Your task to perform on an android device: Show me popular games on the Play Store Image 0: 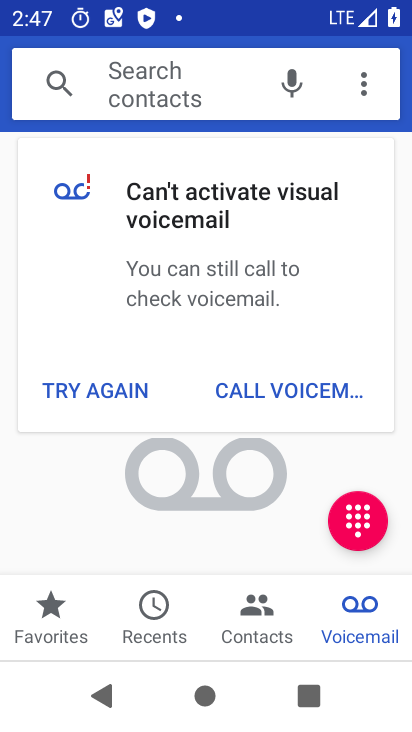
Step 0: press home button
Your task to perform on an android device: Show me popular games on the Play Store Image 1: 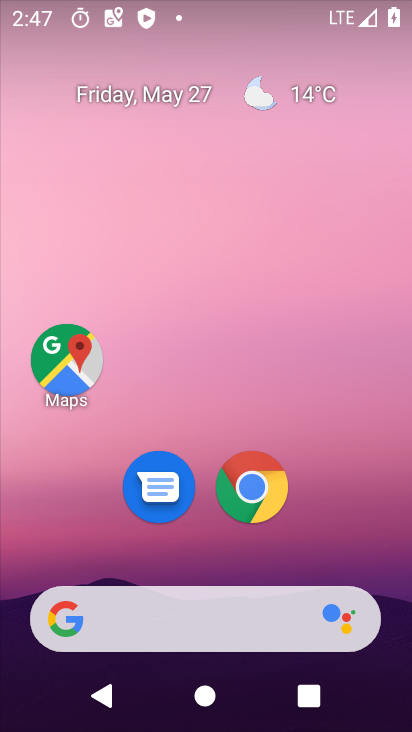
Step 1: drag from (339, 502) to (330, 110)
Your task to perform on an android device: Show me popular games on the Play Store Image 2: 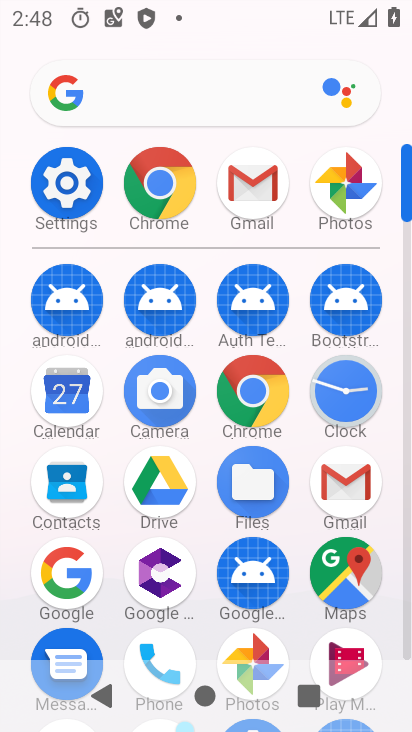
Step 2: drag from (300, 515) to (305, 174)
Your task to perform on an android device: Show me popular games on the Play Store Image 3: 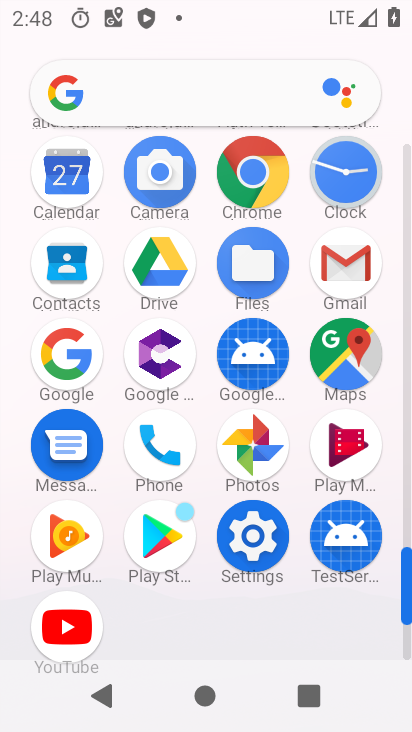
Step 3: click (148, 543)
Your task to perform on an android device: Show me popular games on the Play Store Image 4: 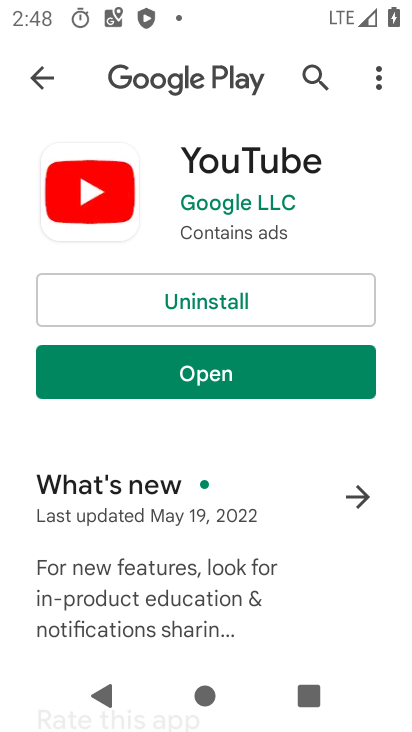
Step 4: click (49, 86)
Your task to perform on an android device: Show me popular games on the Play Store Image 5: 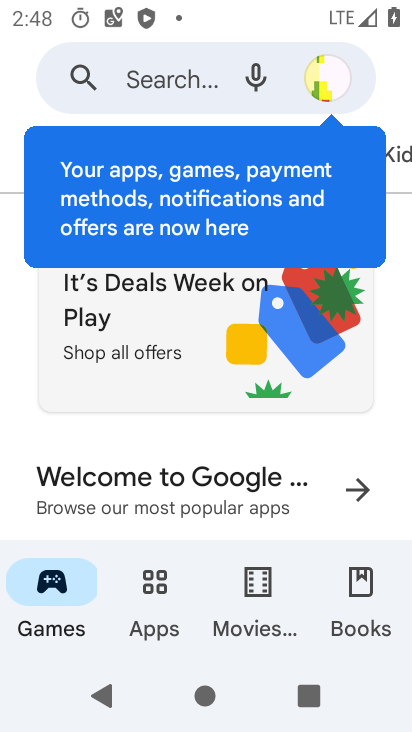
Step 5: drag from (212, 474) to (302, 30)
Your task to perform on an android device: Show me popular games on the Play Store Image 6: 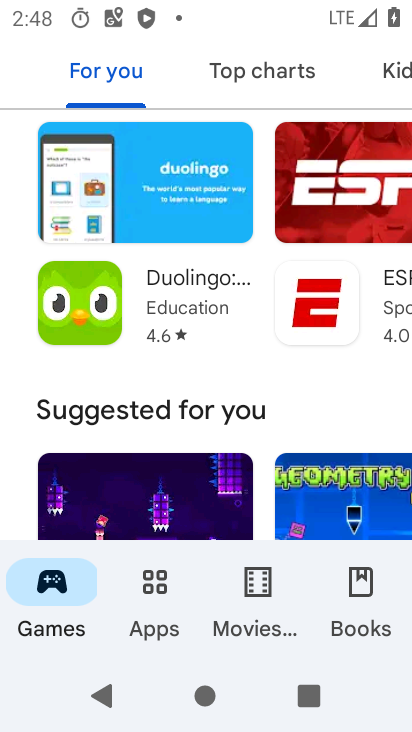
Step 6: drag from (168, 483) to (242, 70)
Your task to perform on an android device: Show me popular games on the Play Store Image 7: 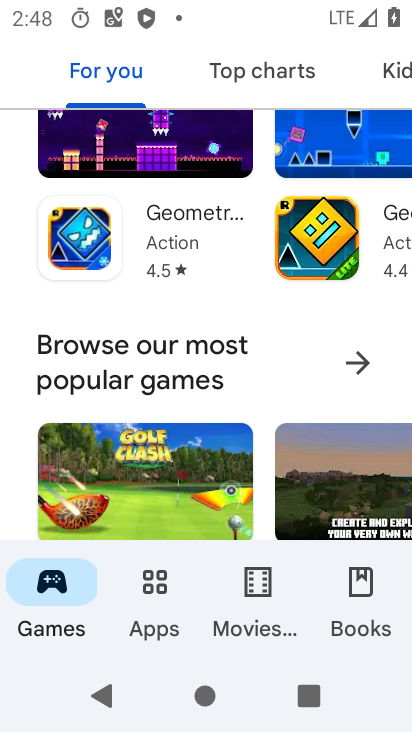
Step 7: drag from (185, 486) to (247, 74)
Your task to perform on an android device: Show me popular games on the Play Store Image 8: 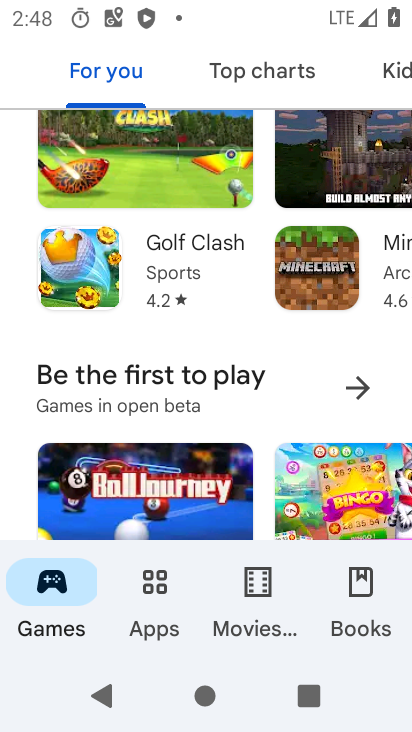
Step 8: drag from (203, 452) to (214, 26)
Your task to perform on an android device: Show me popular games on the Play Store Image 9: 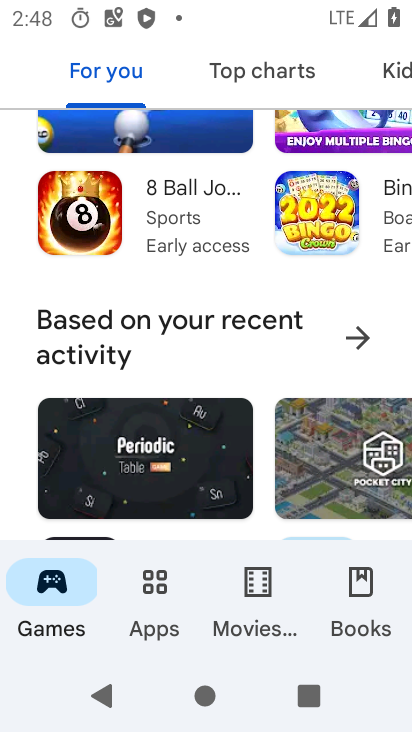
Step 9: drag from (194, 366) to (224, 76)
Your task to perform on an android device: Show me popular games on the Play Store Image 10: 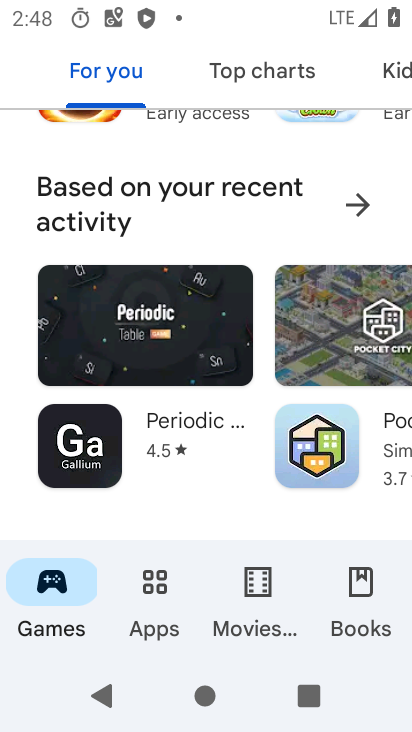
Step 10: drag from (185, 418) to (222, 92)
Your task to perform on an android device: Show me popular games on the Play Store Image 11: 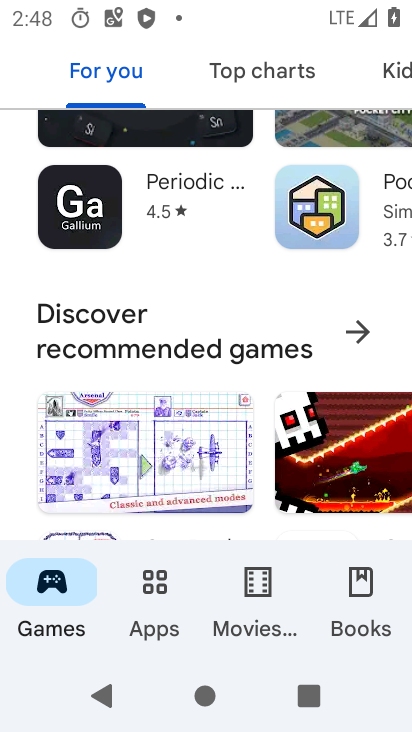
Step 11: drag from (168, 443) to (220, 140)
Your task to perform on an android device: Show me popular games on the Play Store Image 12: 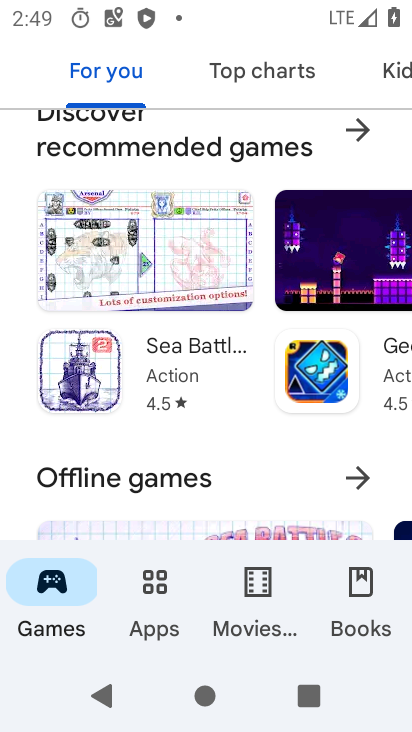
Step 12: drag from (197, 399) to (241, 92)
Your task to perform on an android device: Show me popular games on the Play Store Image 13: 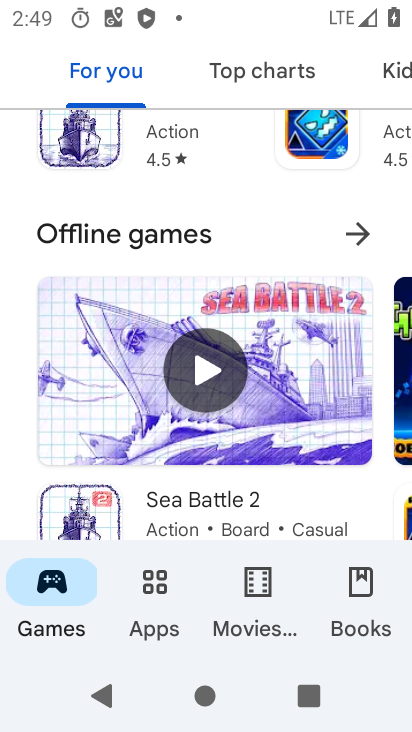
Step 13: drag from (204, 474) to (274, 104)
Your task to perform on an android device: Show me popular games on the Play Store Image 14: 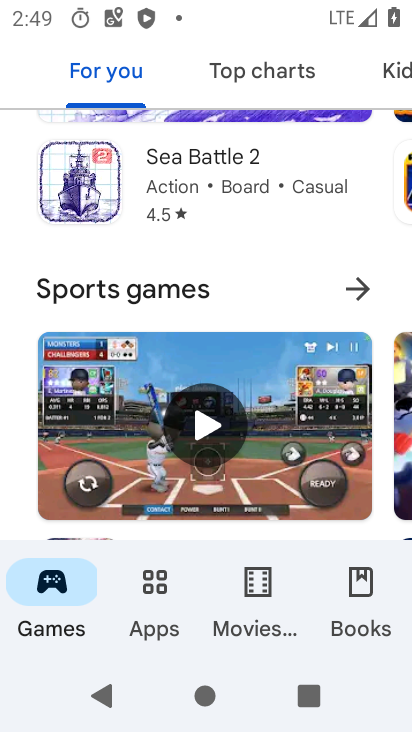
Step 14: drag from (210, 494) to (268, 149)
Your task to perform on an android device: Show me popular games on the Play Store Image 15: 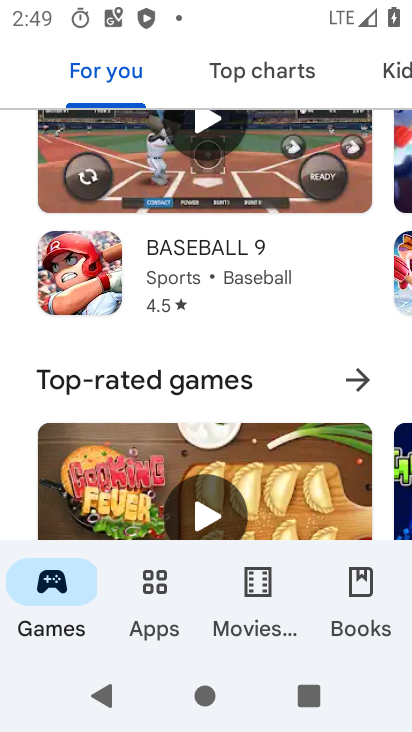
Step 15: drag from (222, 467) to (230, 89)
Your task to perform on an android device: Show me popular games on the Play Store Image 16: 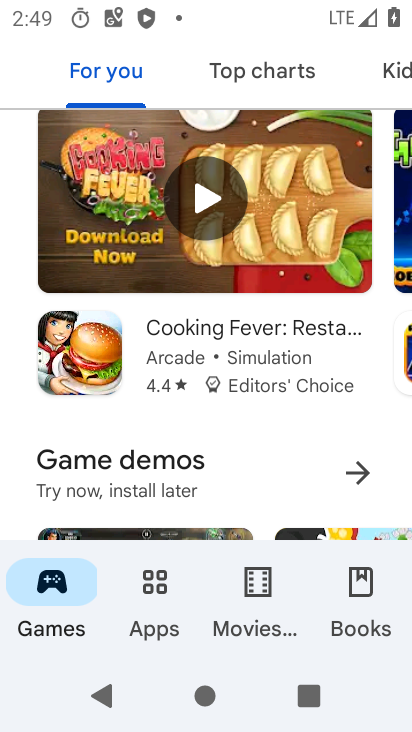
Step 16: drag from (196, 429) to (246, 32)
Your task to perform on an android device: Show me popular games on the Play Store Image 17: 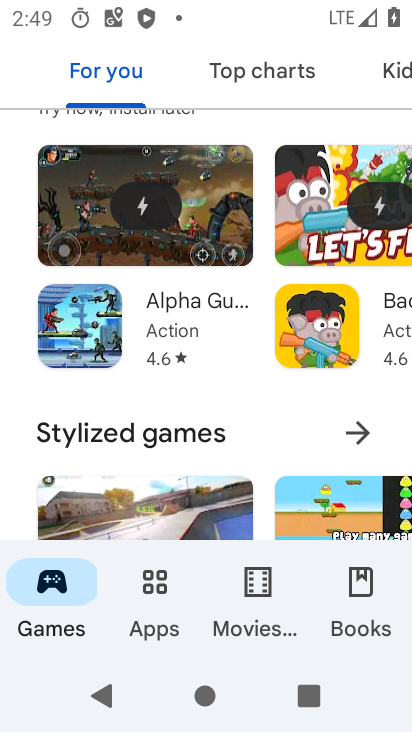
Step 17: drag from (181, 460) to (239, 108)
Your task to perform on an android device: Show me popular games on the Play Store Image 18: 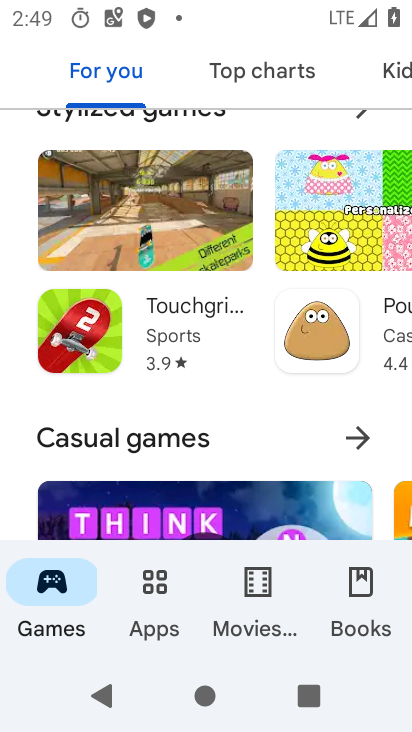
Step 18: drag from (190, 453) to (205, 137)
Your task to perform on an android device: Show me popular games on the Play Store Image 19: 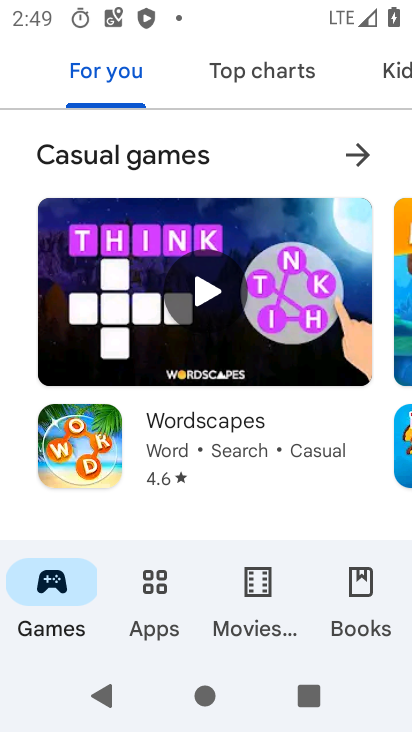
Step 19: drag from (208, 483) to (194, 152)
Your task to perform on an android device: Show me popular games on the Play Store Image 20: 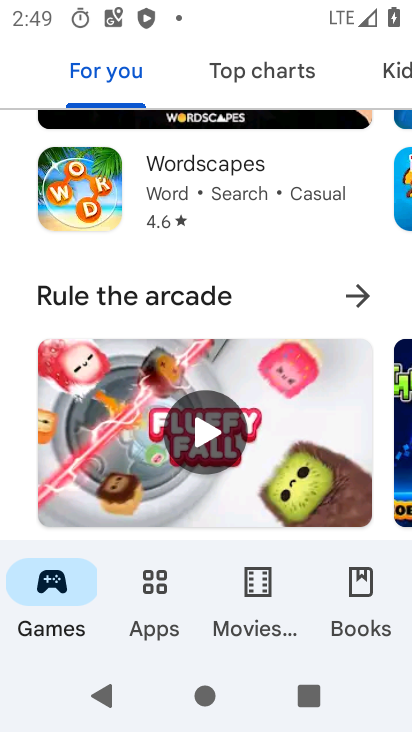
Step 20: drag from (224, 486) to (224, 125)
Your task to perform on an android device: Show me popular games on the Play Store Image 21: 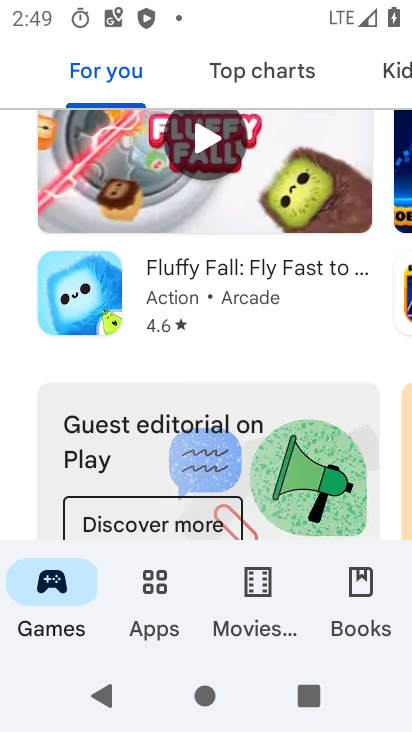
Step 21: drag from (215, 514) to (261, 109)
Your task to perform on an android device: Show me popular games on the Play Store Image 22: 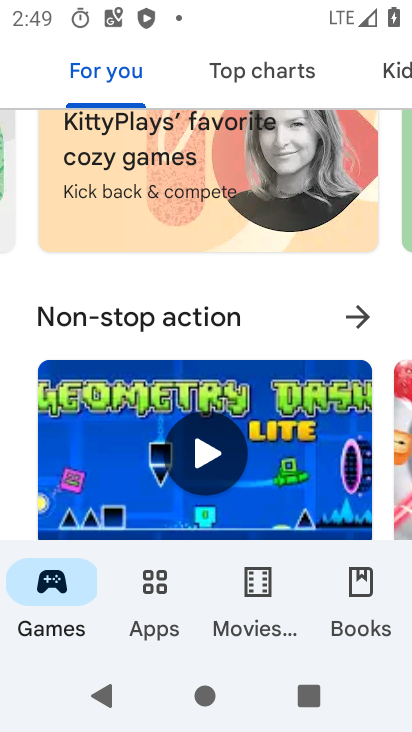
Step 22: drag from (263, 504) to (297, 124)
Your task to perform on an android device: Show me popular games on the Play Store Image 23: 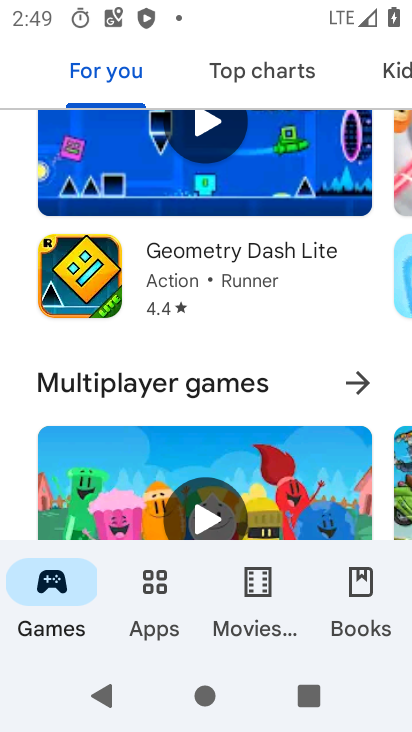
Step 23: drag from (267, 492) to (300, 196)
Your task to perform on an android device: Show me popular games on the Play Store Image 24: 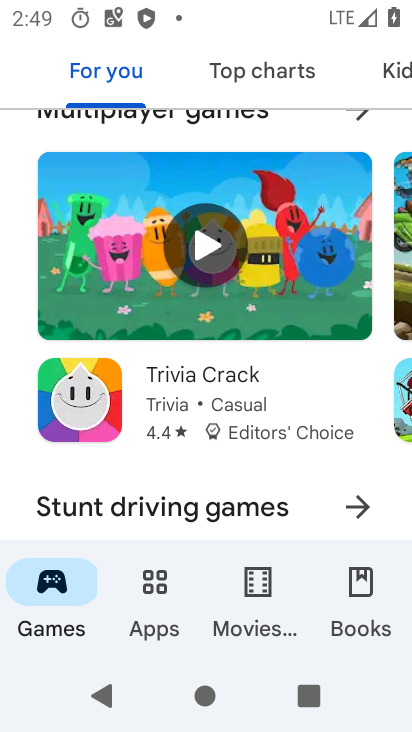
Step 24: drag from (265, 504) to (275, 165)
Your task to perform on an android device: Show me popular games on the Play Store Image 25: 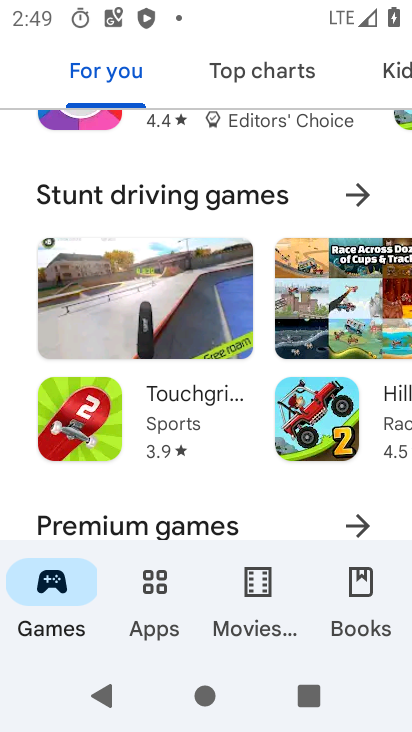
Step 25: drag from (232, 483) to (223, 165)
Your task to perform on an android device: Show me popular games on the Play Store Image 26: 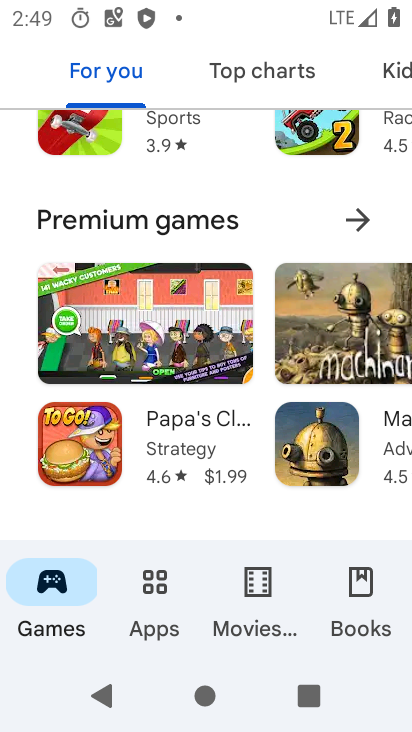
Step 26: drag from (178, 505) to (188, 183)
Your task to perform on an android device: Show me popular games on the Play Store Image 27: 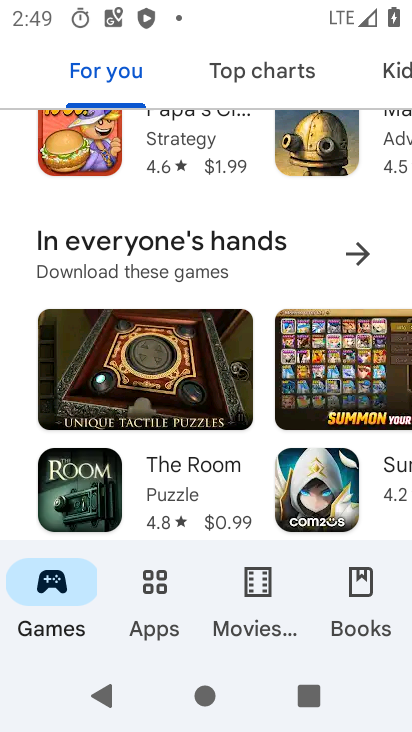
Step 27: drag from (165, 506) to (224, 211)
Your task to perform on an android device: Show me popular games on the Play Store Image 28: 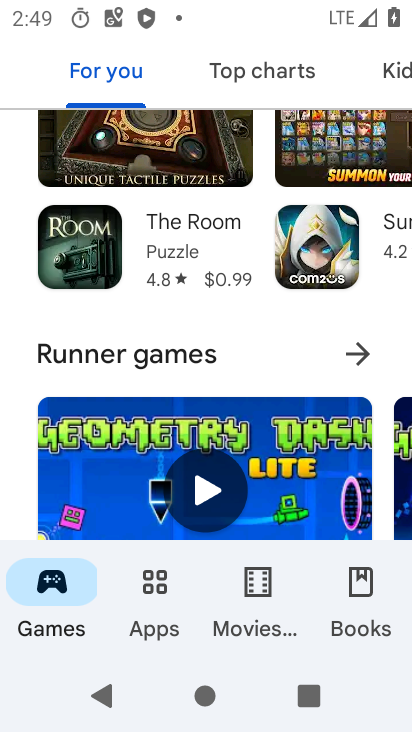
Step 28: drag from (206, 502) to (234, 258)
Your task to perform on an android device: Show me popular games on the Play Store Image 29: 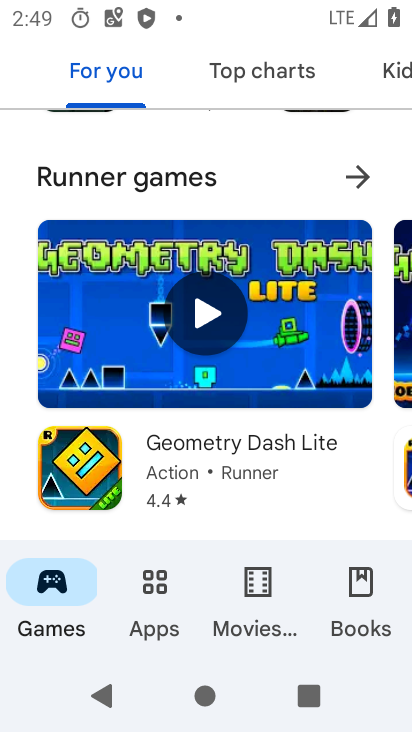
Step 29: drag from (231, 503) to (240, 230)
Your task to perform on an android device: Show me popular games on the Play Store Image 30: 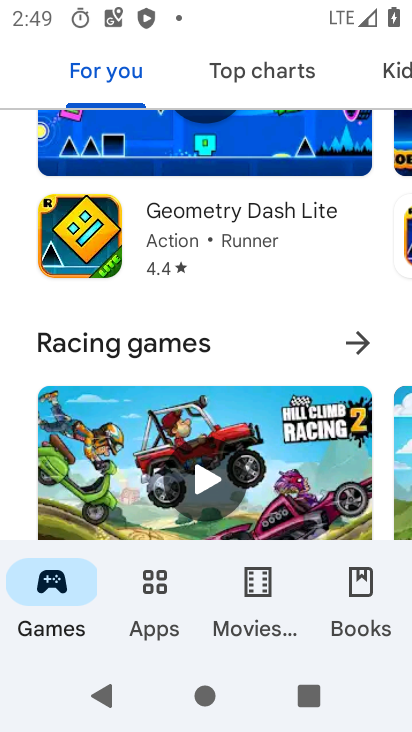
Step 30: drag from (242, 462) to (305, 202)
Your task to perform on an android device: Show me popular games on the Play Store Image 31: 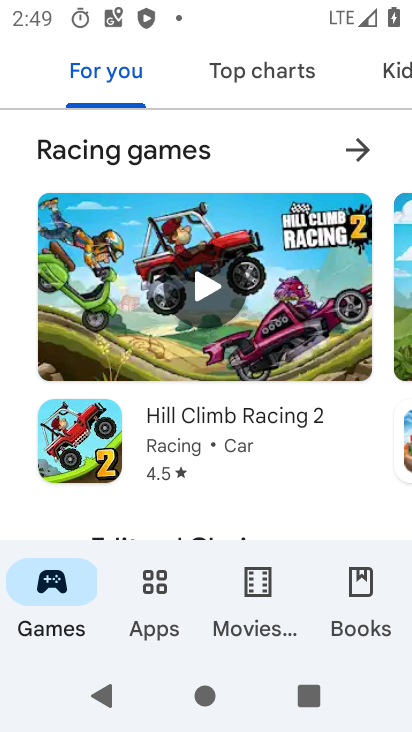
Step 31: drag from (285, 518) to (278, 115)
Your task to perform on an android device: Show me popular games on the Play Store Image 32: 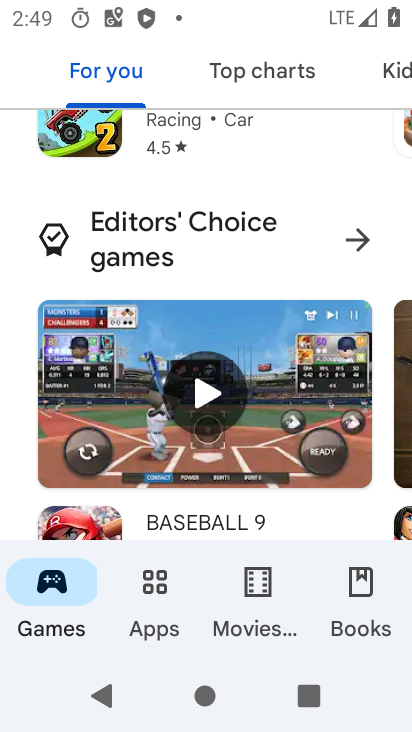
Step 32: drag from (301, 428) to (307, 83)
Your task to perform on an android device: Show me popular games on the Play Store Image 33: 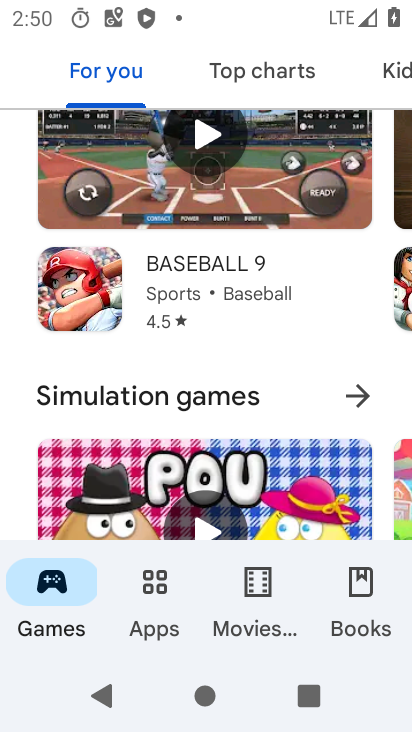
Step 33: drag from (266, 409) to (294, 101)
Your task to perform on an android device: Show me popular games on the Play Store Image 34: 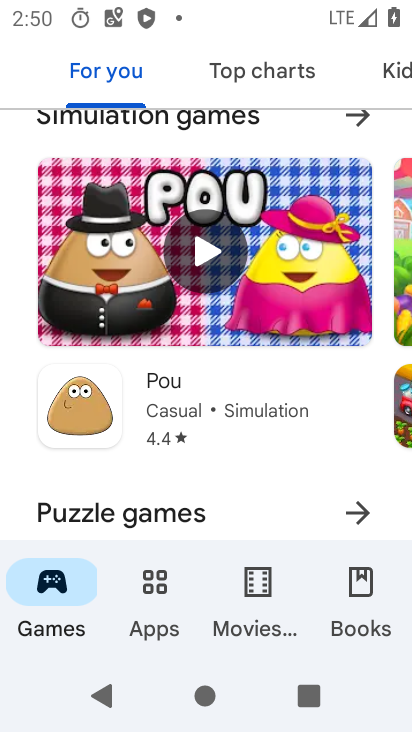
Step 34: drag from (184, 536) to (259, 181)
Your task to perform on an android device: Show me popular games on the Play Store Image 35: 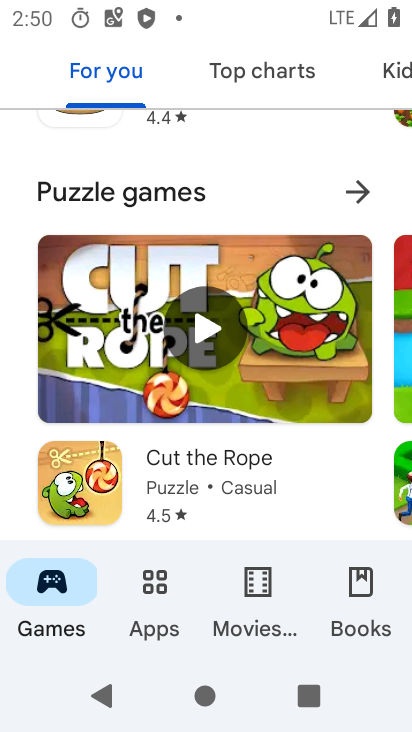
Step 35: drag from (210, 481) to (306, 169)
Your task to perform on an android device: Show me popular games on the Play Store Image 36: 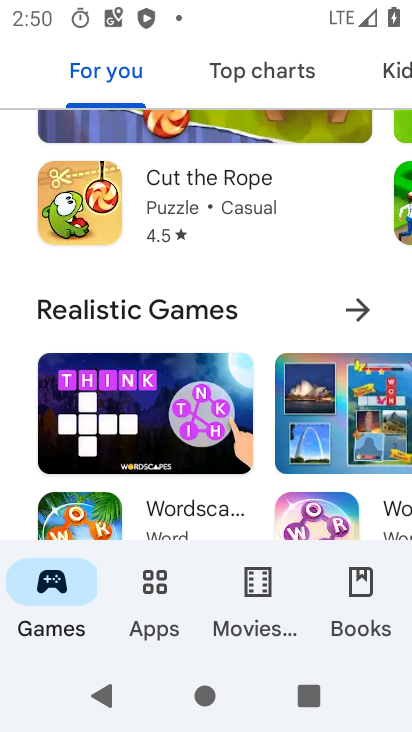
Step 36: drag from (233, 407) to (299, 175)
Your task to perform on an android device: Show me popular games on the Play Store Image 37: 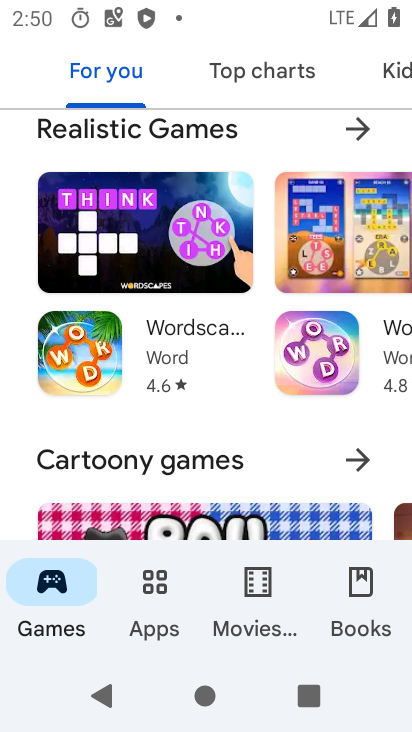
Step 37: drag from (258, 233) to (298, 127)
Your task to perform on an android device: Show me popular games on the Play Store Image 38: 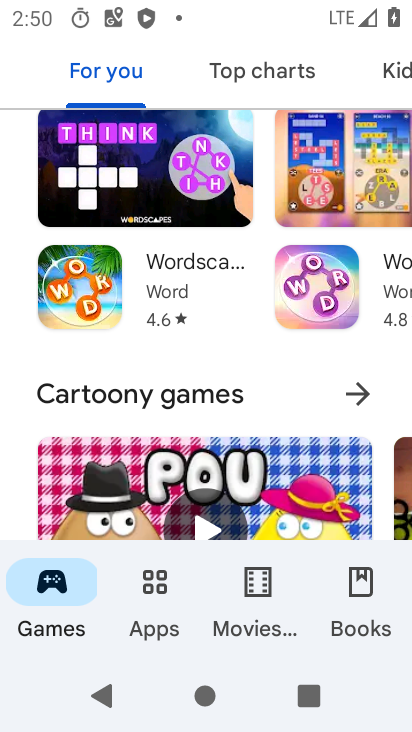
Step 38: drag from (195, 438) to (247, 135)
Your task to perform on an android device: Show me popular games on the Play Store Image 39: 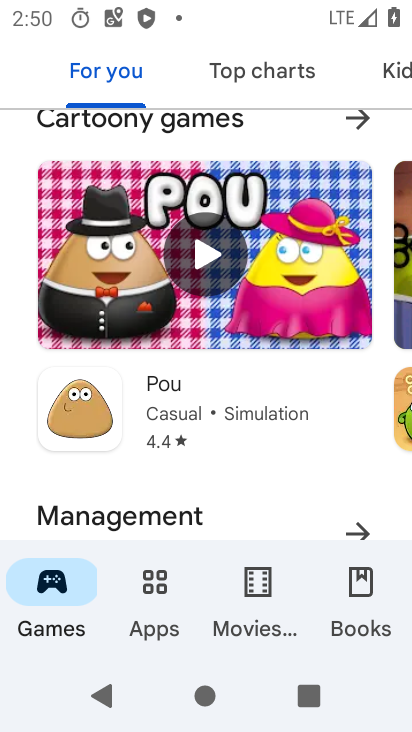
Step 39: drag from (282, 383) to (331, 102)
Your task to perform on an android device: Show me popular games on the Play Store Image 40: 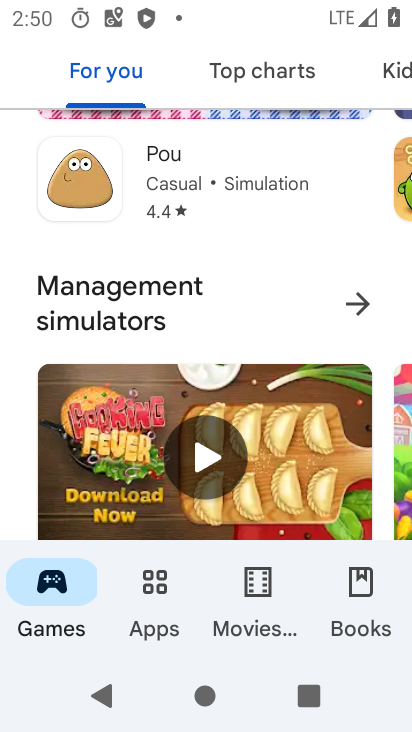
Step 40: drag from (297, 492) to (310, 124)
Your task to perform on an android device: Show me popular games on the Play Store Image 41: 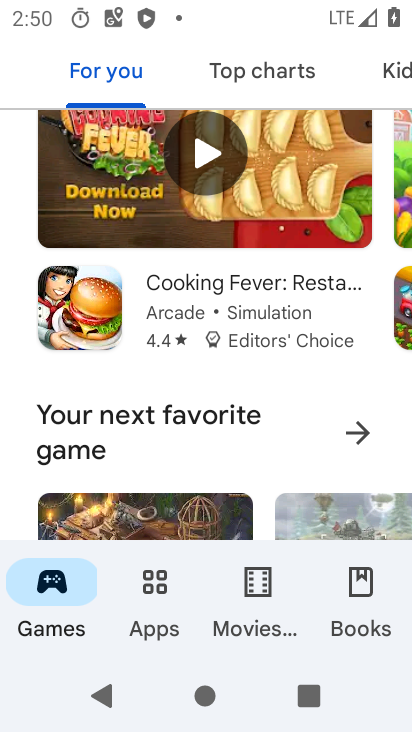
Step 41: click (310, 120)
Your task to perform on an android device: Show me popular games on the Play Store Image 42: 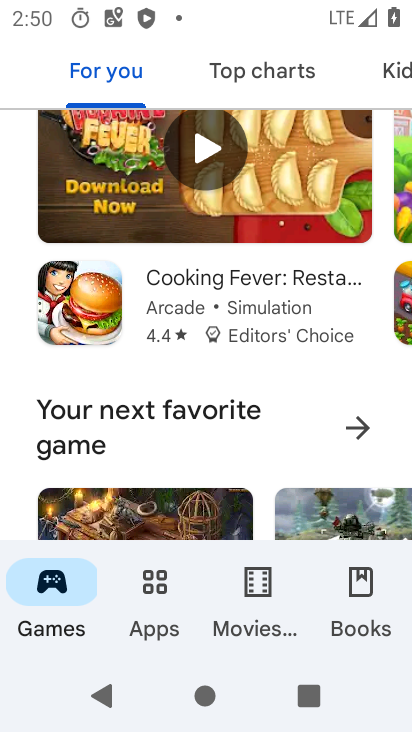
Step 42: task complete